Your task to perform on an android device: open chrome privacy settings Image 0: 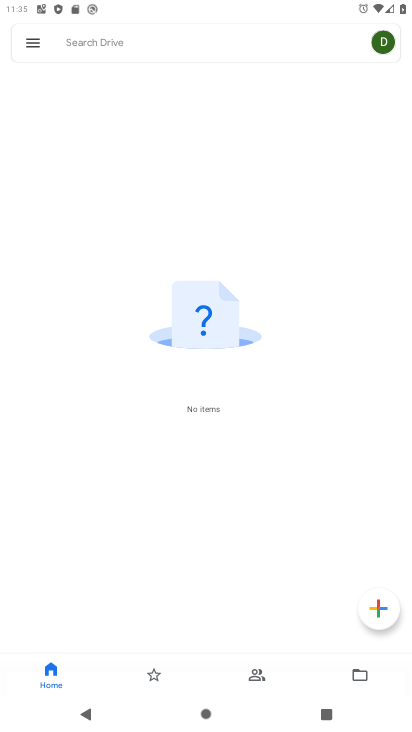
Step 0: press home button
Your task to perform on an android device: open chrome privacy settings Image 1: 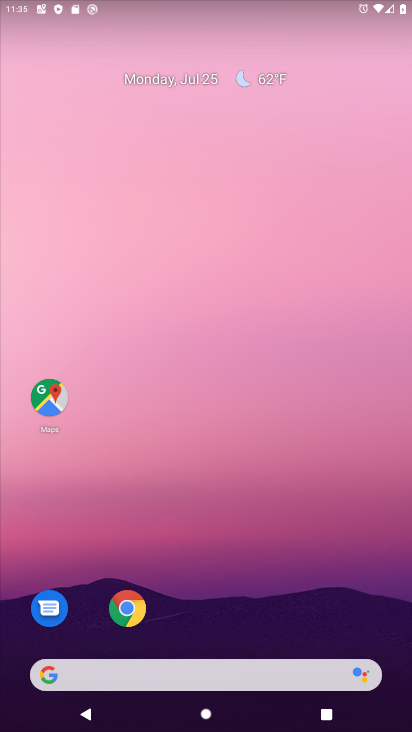
Step 1: drag from (209, 619) to (221, 64)
Your task to perform on an android device: open chrome privacy settings Image 2: 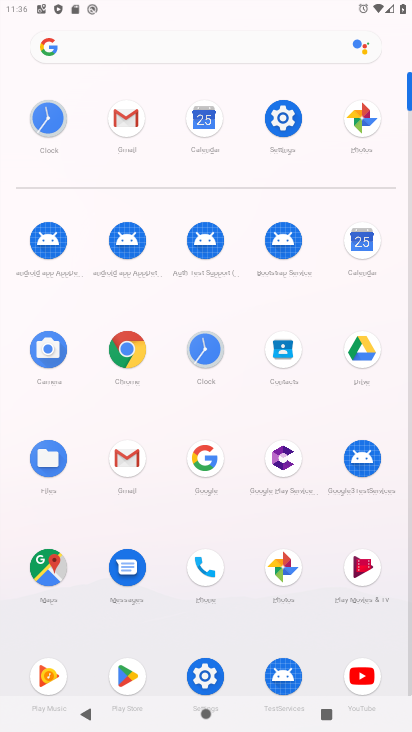
Step 2: click (126, 366)
Your task to perform on an android device: open chrome privacy settings Image 3: 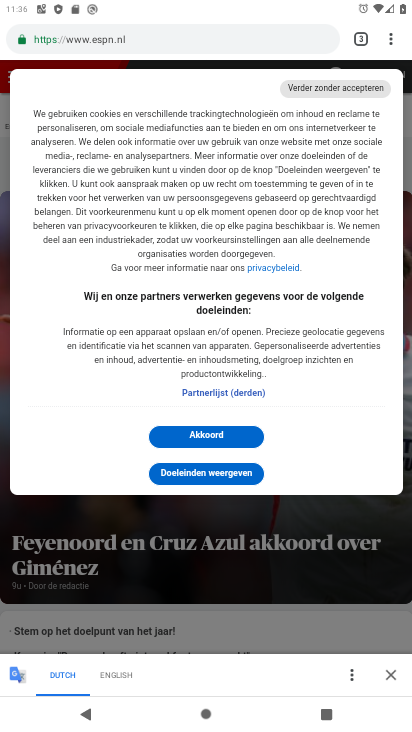
Step 3: click (388, 38)
Your task to perform on an android device: open chrome privacy settings Image 4: 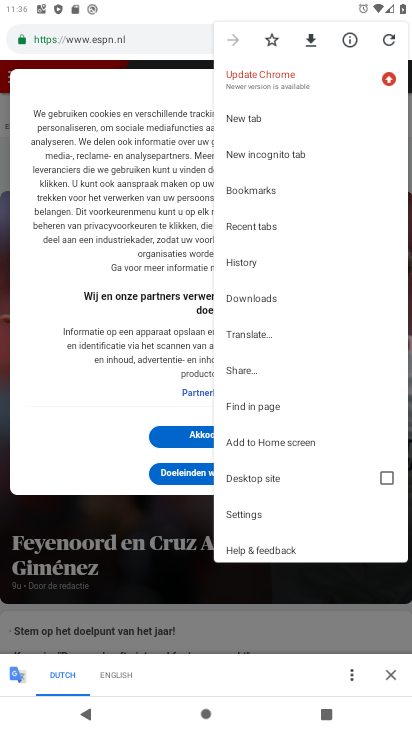
Step 4: click (391, 44)
Your task to perform on an android device: open chrome privacy settings Image 5: 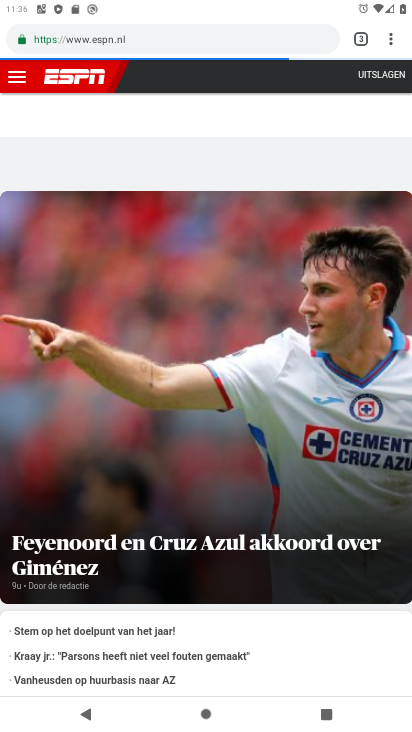
Step 5: click (396, 42)
Your task to perform on an android device: open chrome privacy settings Image 6: 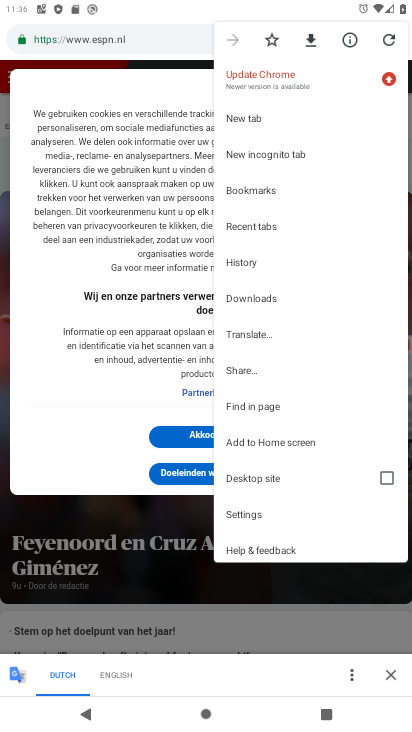
Step 6: click (245, 515)
Your task to perform on an android device: open chrome privacy settings Image 7: 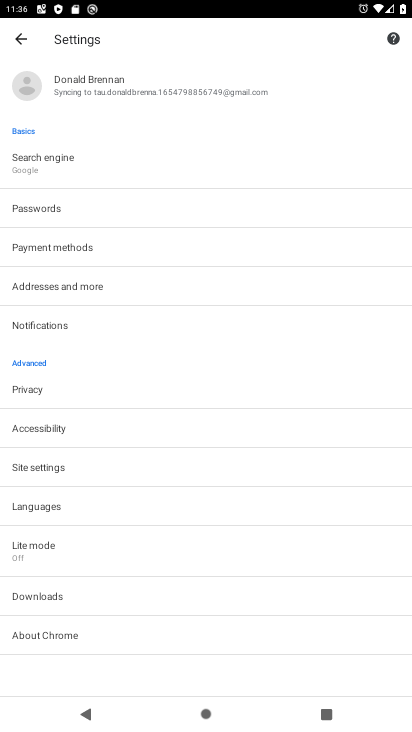
Step 7: click (42, 389)
Your task to perform on an android device: open chrome privacy settings Image 8: 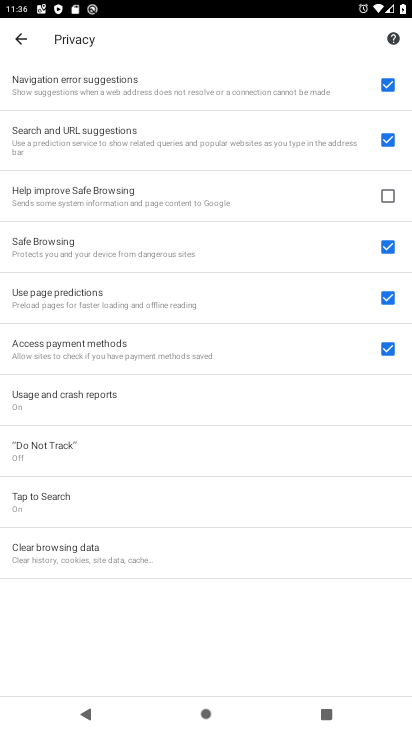
Step 8: task complete